Your task to perform on an android device: toggle pop-ups in chrome Image 0: 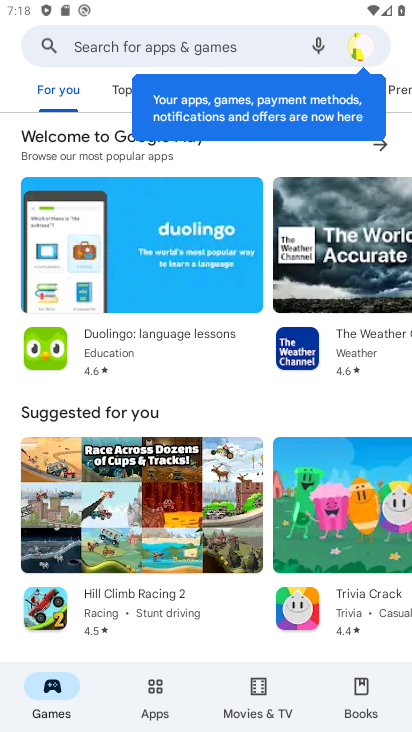
Step 0: press home button
Your task to perform on an android device: toggle pop-ups in chrome Image 1: 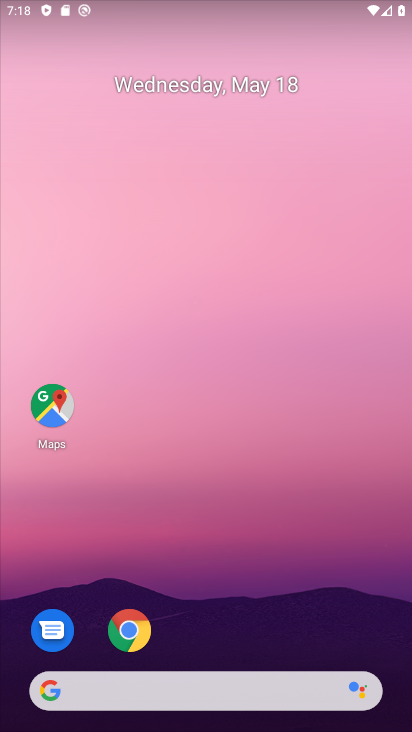
Step 1: click (128, 631)
Your task to perform on an android device: toggle pop-ups in chrome Image 2: 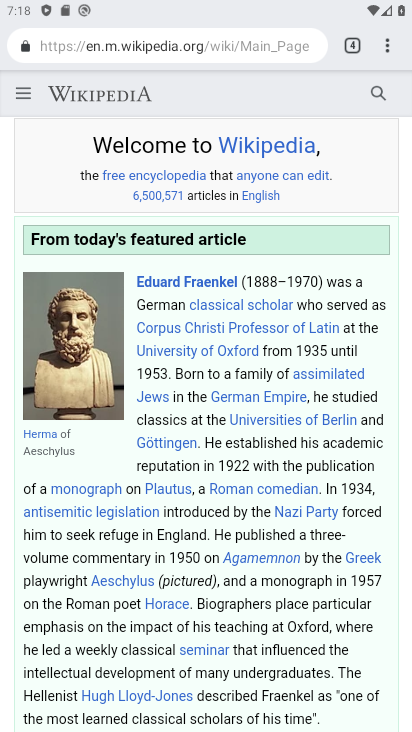
Step 2: click (380, 54)
Your task to perform on an android device: toggle pop-ups in chrome Image 3: 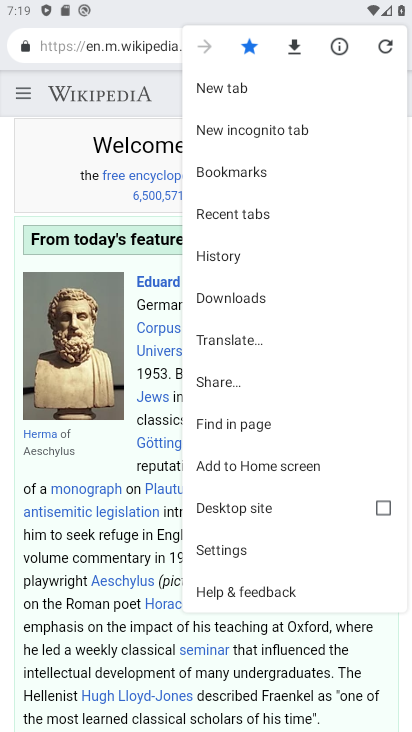
Step 3: click (228, 547)
Your task to perform on an android device: toggle pop-ups in chrome Image 4: 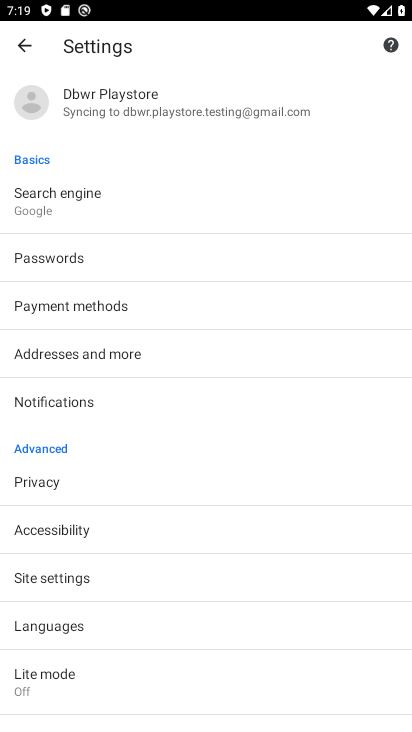
Step 4: drag from (207, 526) to (171, 349)
Your task to perform on an android device: toggle pop-ups in chrome Image 5: 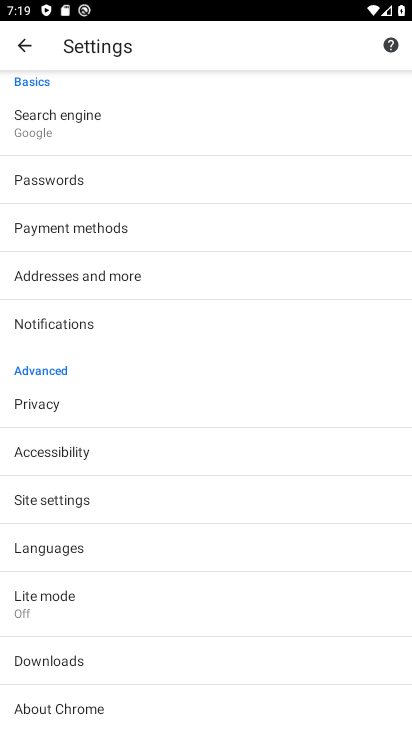
Step 5: click (67, 499)
Your task to perform on an android device: toggle pop-ups in chrome Image 6: 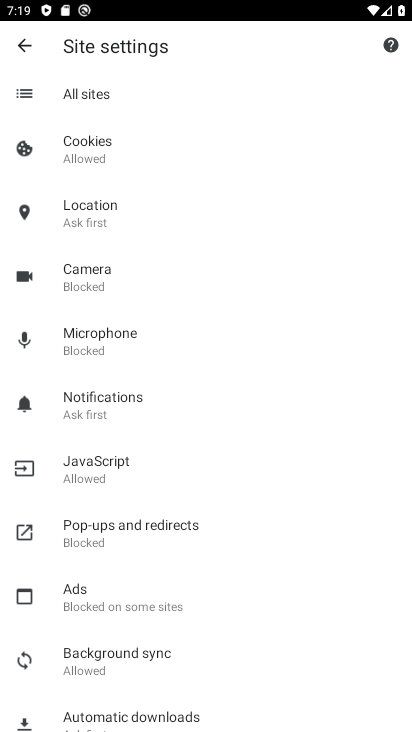
Step 6: click (101, 523)
Your task to perform on an android device: toggle pop-ups in chrome Image 7: 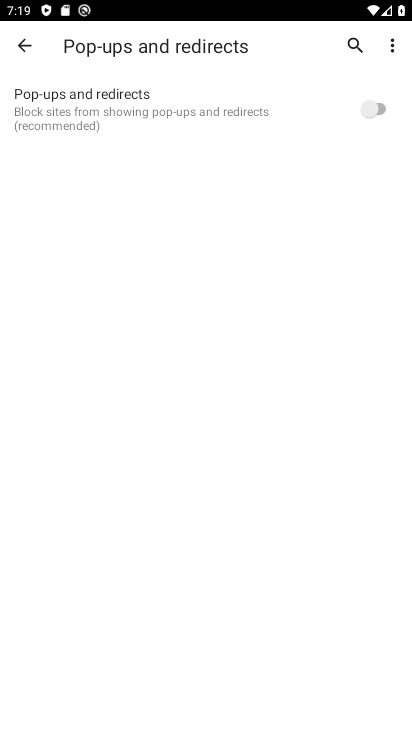
Step 7: click (368, 102)
Your task to perform on an android device: toggle pop-ups in chrome Image 8: 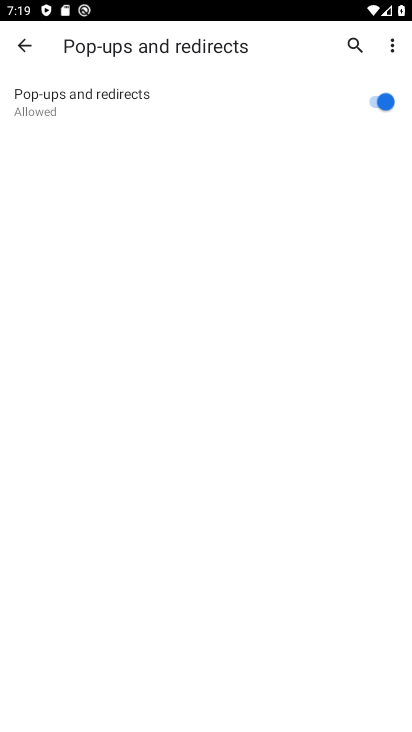
Step 8: task complete